Your task to perform on an android device: check the backup settings in the google photos Image 0: 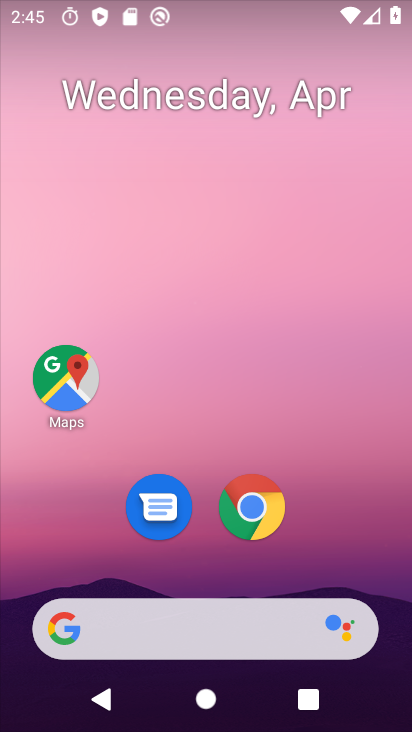
Step 0: drag from (318, 563) to (229, 131)
Your task to perform on an android device: check the backup settings in the google photos Image 1: 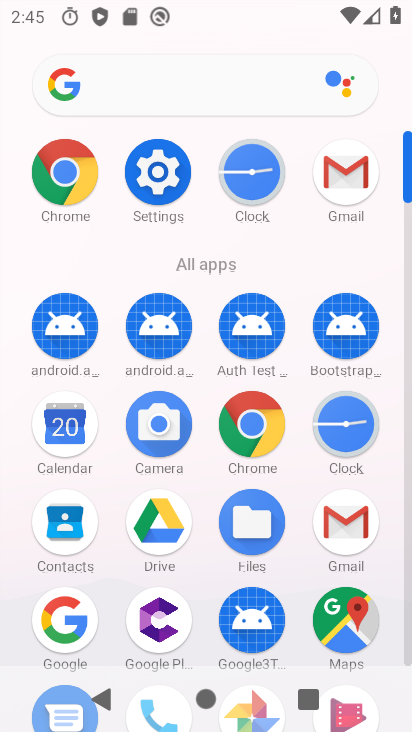
Step 1: drag from (197, 601) to (178, 190)
Your task to perform on an android device: check the backup settings in the google photos Image 2: 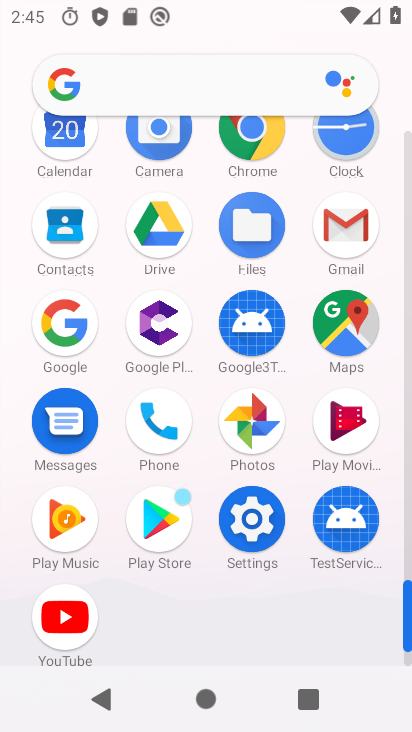
Step 2: click (260, 446)
Your task to perform on an android device: check the backup settings in the google photos Image 3: 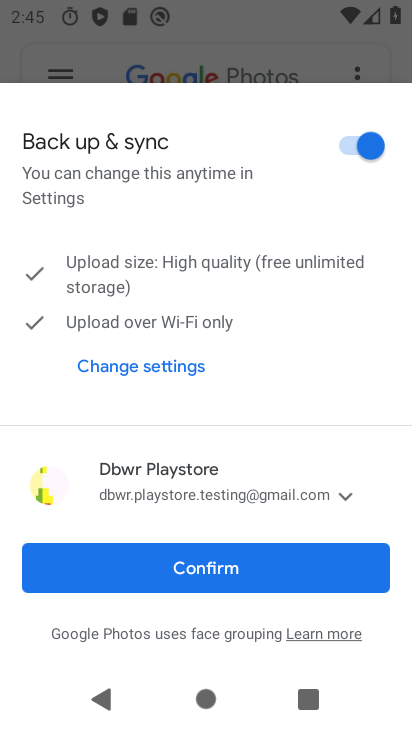
Step 3: click (174, 581)
Your task to perform on an android device: check the backup settings in the google photos Image 4: 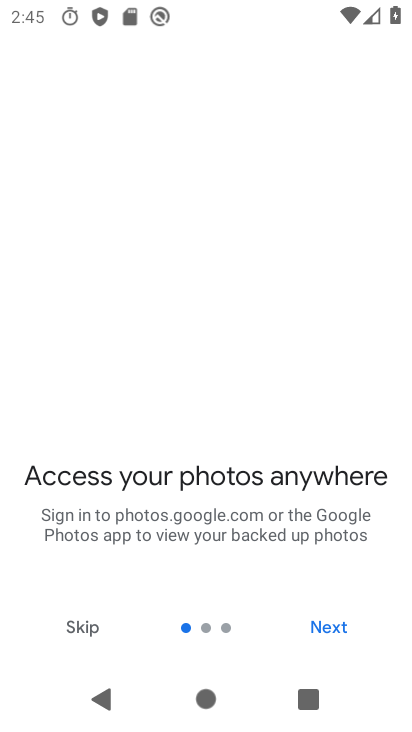
Step 4: click (80, 625)
Your task to perform on an android device: check the backup settings in the google photos Image 5: 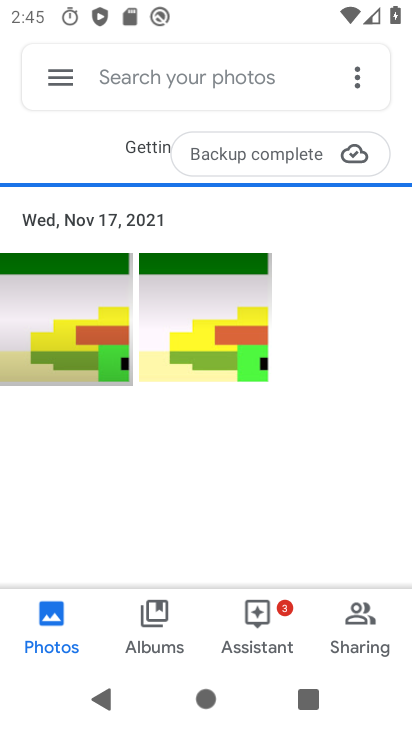
Step 5: click (64, 77)
Your task to perform on an android device: check the backup settings in the google photos Image 6: 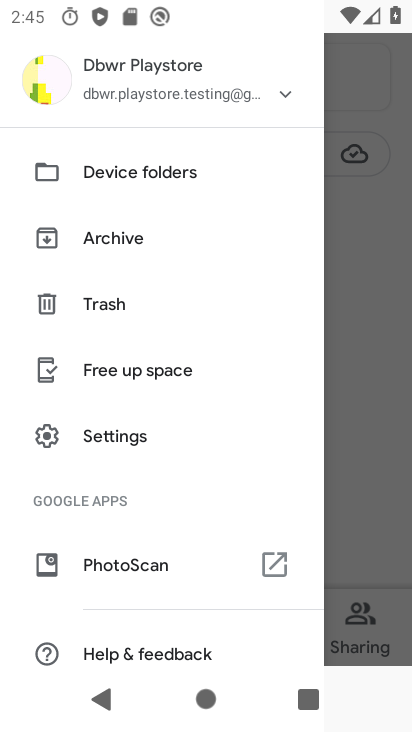
Step 6: click (110, 432)
Your task to perform on an android device: check the backup settings in the google photos Image 7: 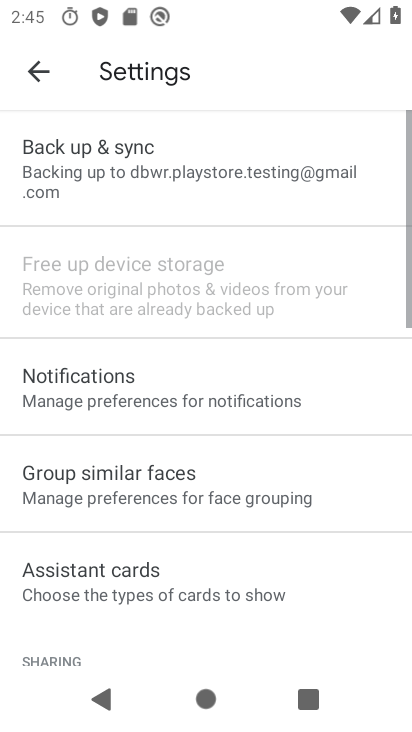
Step 7: click (89, 164)
Your task to perform on an android device: check the backup settings in the google photos Image 8: 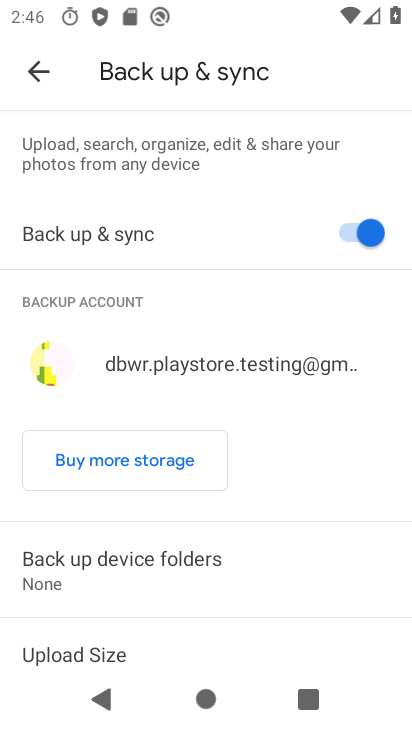
Step 8: drag from (266, 537) to (184, 175)
Your task to perform on an android device: check the backup settings in the google photos Image 9: 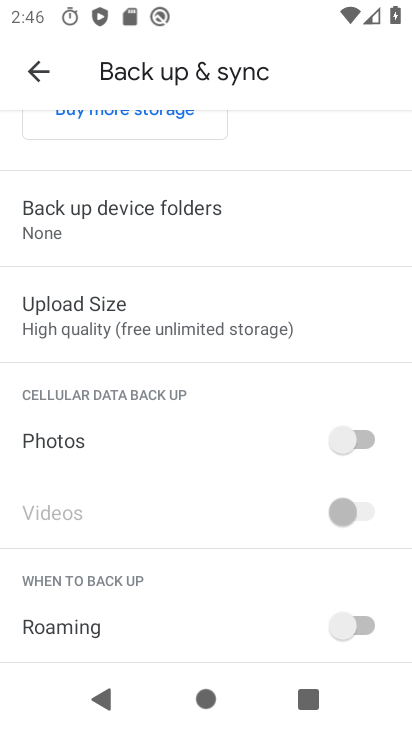
Step 9: drag from (178, 542) to (111, 150)
Your task to perform on an android device: check the backup settings in the google photos Image 10: 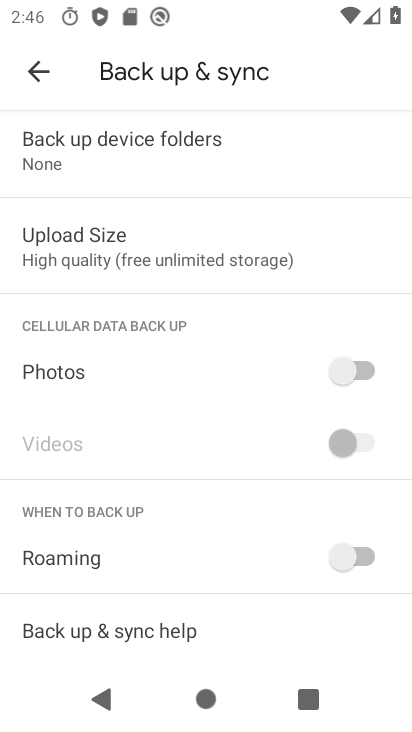
Step 10: click (132, 633)
Your task to perform on an android device: check the backup settings in the google photos Image 11: 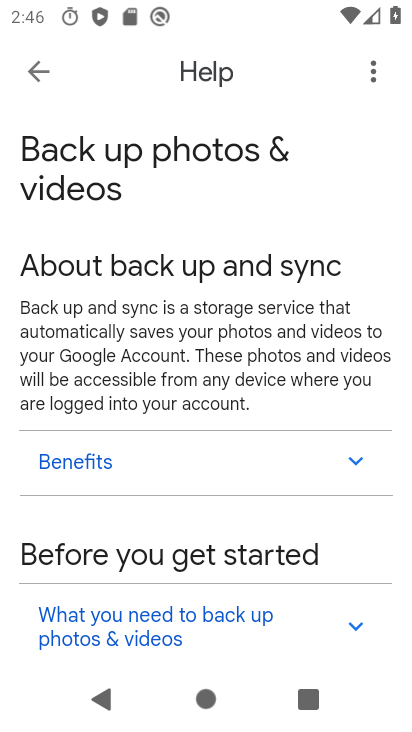
Step 11: task complete